Your task to perform on an android device: What is the recent news? Image 0: 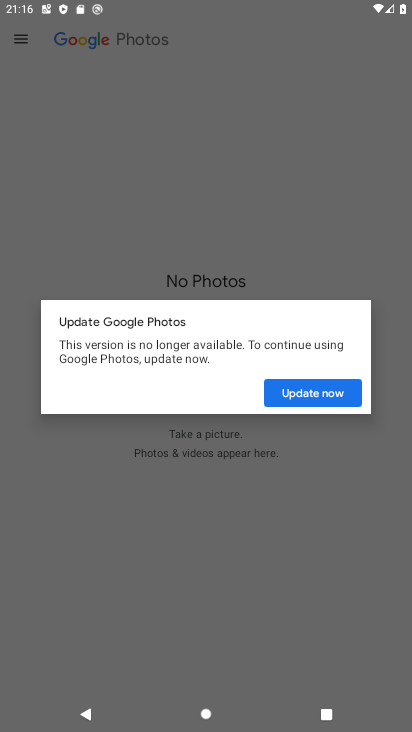
Step 0: press home button
Your task to perform on an android device: What is the recent news? Image 1: 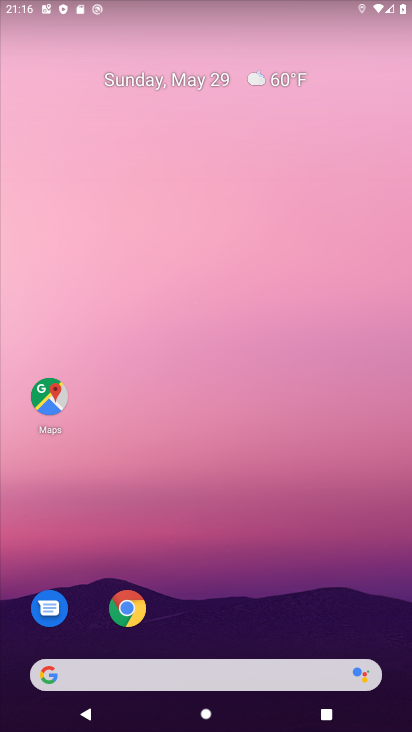
Step 1: task complete